Your task to perform on an android device: open app "DuckDuckGo Privacy Browser" (install if not already installed), go to login, and select forgot password Image 0: 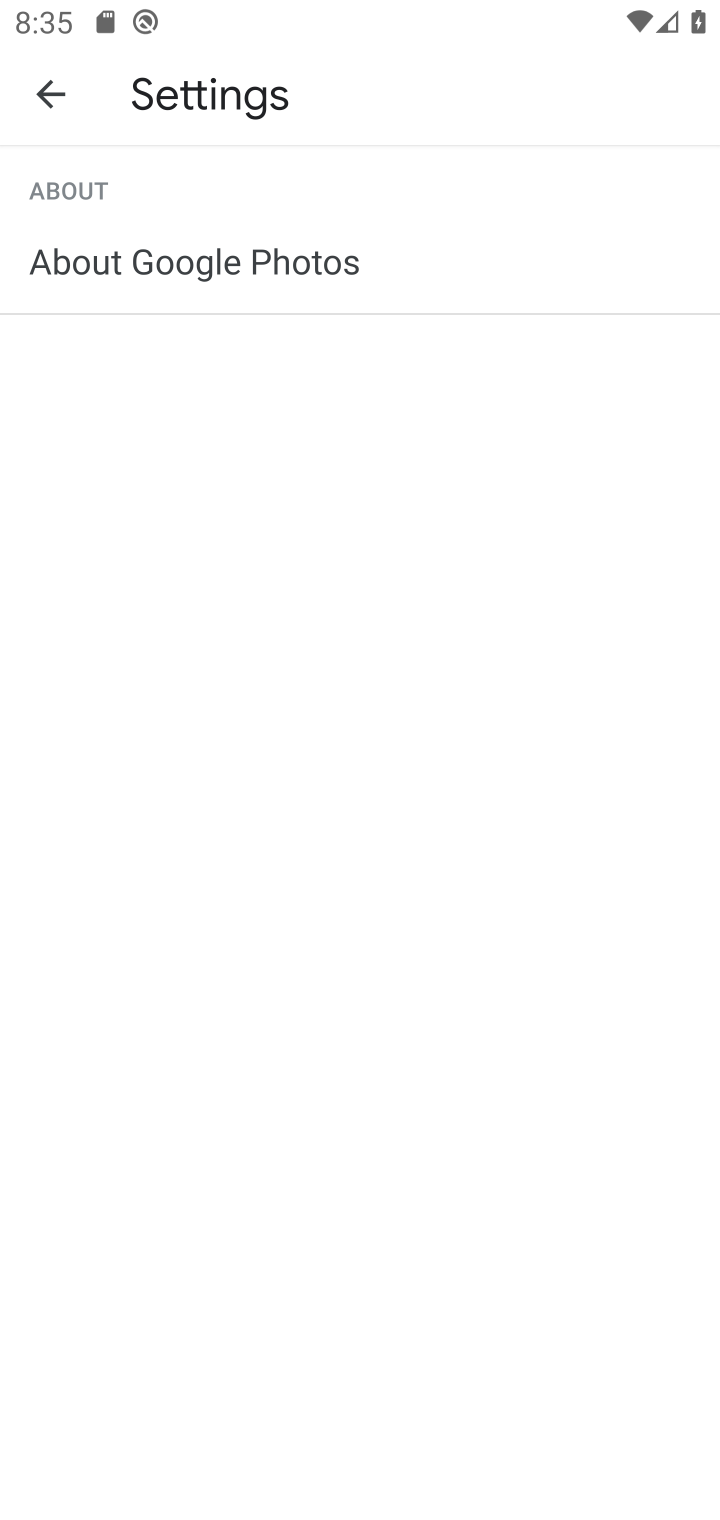
Step 0: press home button
Your task to perform on an android device: open app "DuckDuckGo Privacy Browser" (install if not already installed), go to login, and select forgot password Image 1: 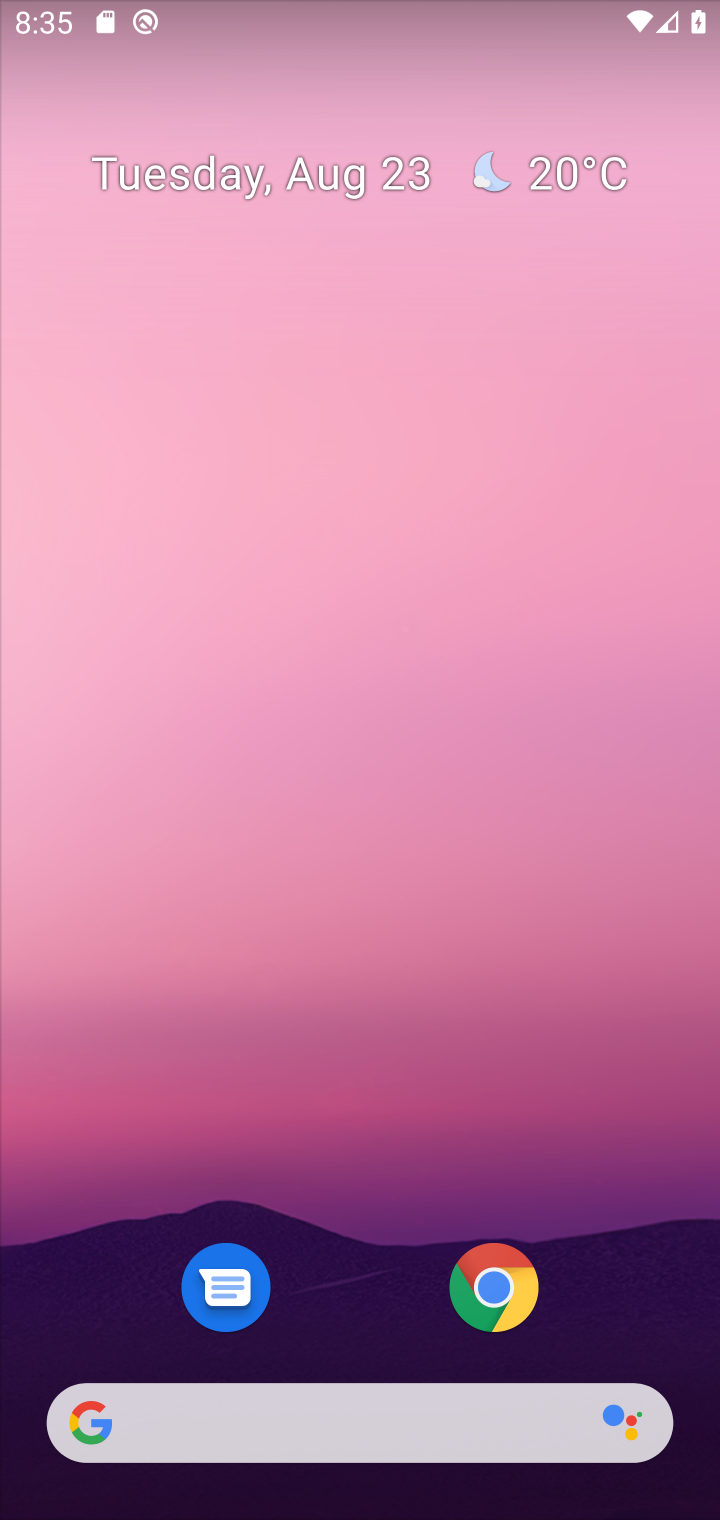
Step 1: drag from (375, 1349) to (301, 169)
Your task to perform on an android device: open app "DuckDuckGo Privacy Browser" (install if not already installed), go to login, and select forgot password Image 2: 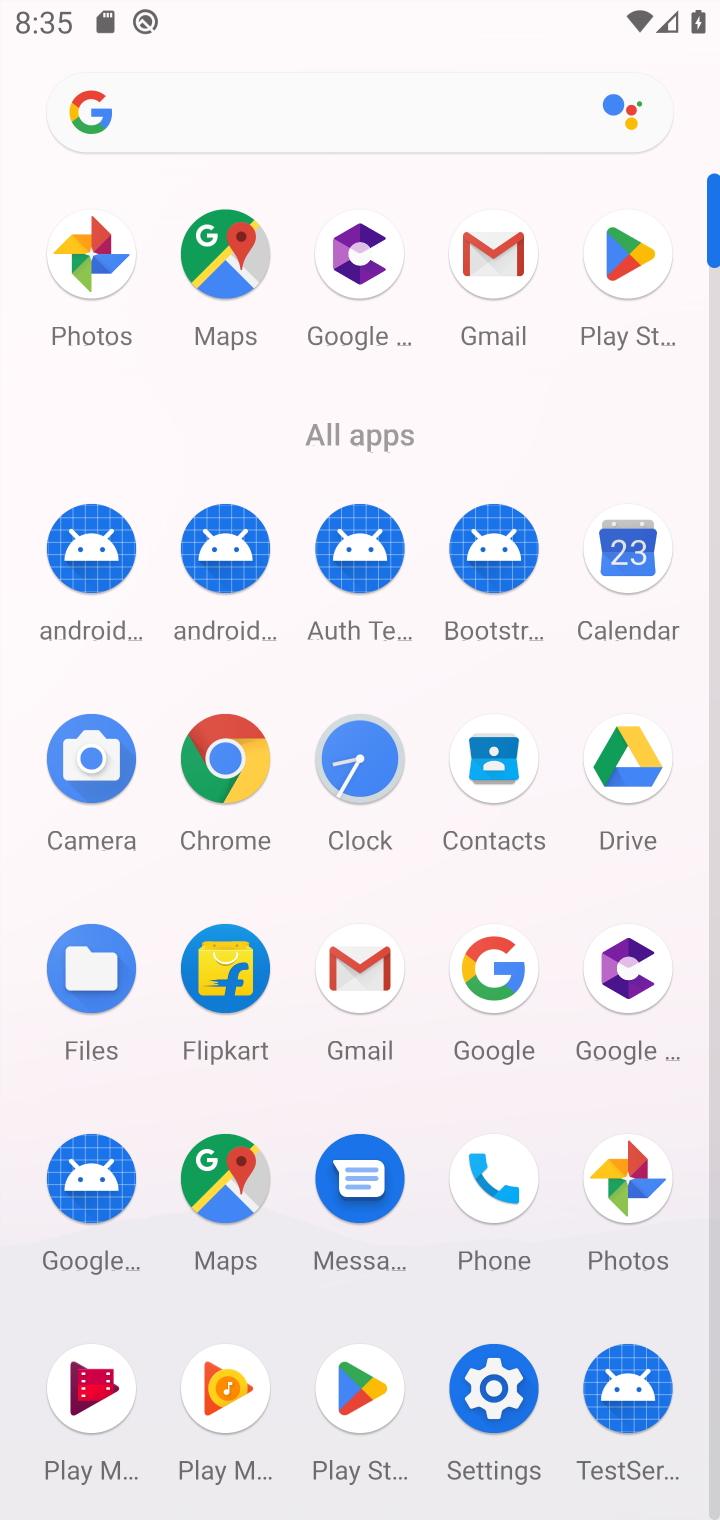
Step 2: click (635, 267)
Your task to perform on an android device: open app "DuckDuckGo Privacy Browser" (install if not already installed), go to login, and select forgot password Image 3: 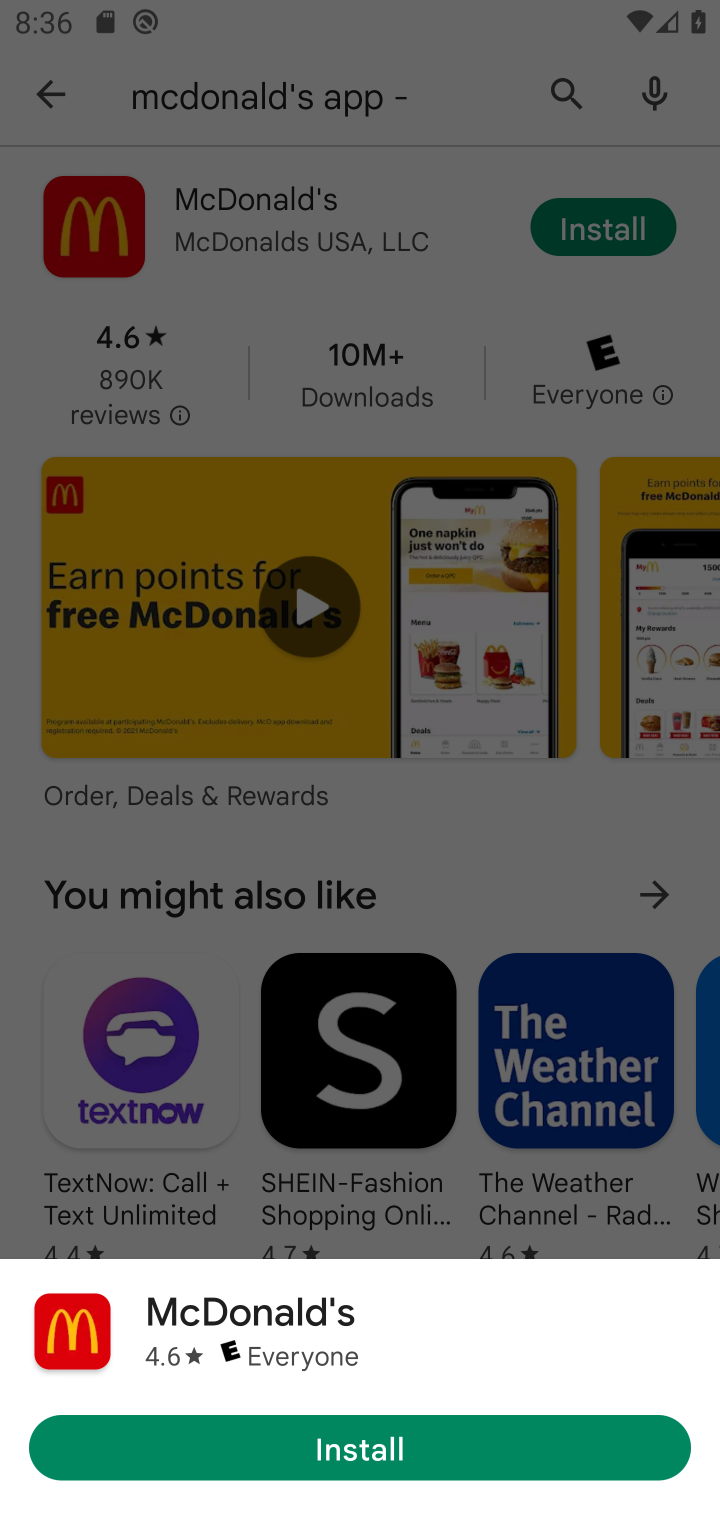
Step 3: click (559, 74)
Your task to perform on an android device: open app "DuckDuckGo Privacy Browser" (install if not already installed), go to login, and select forgot password Image 4: 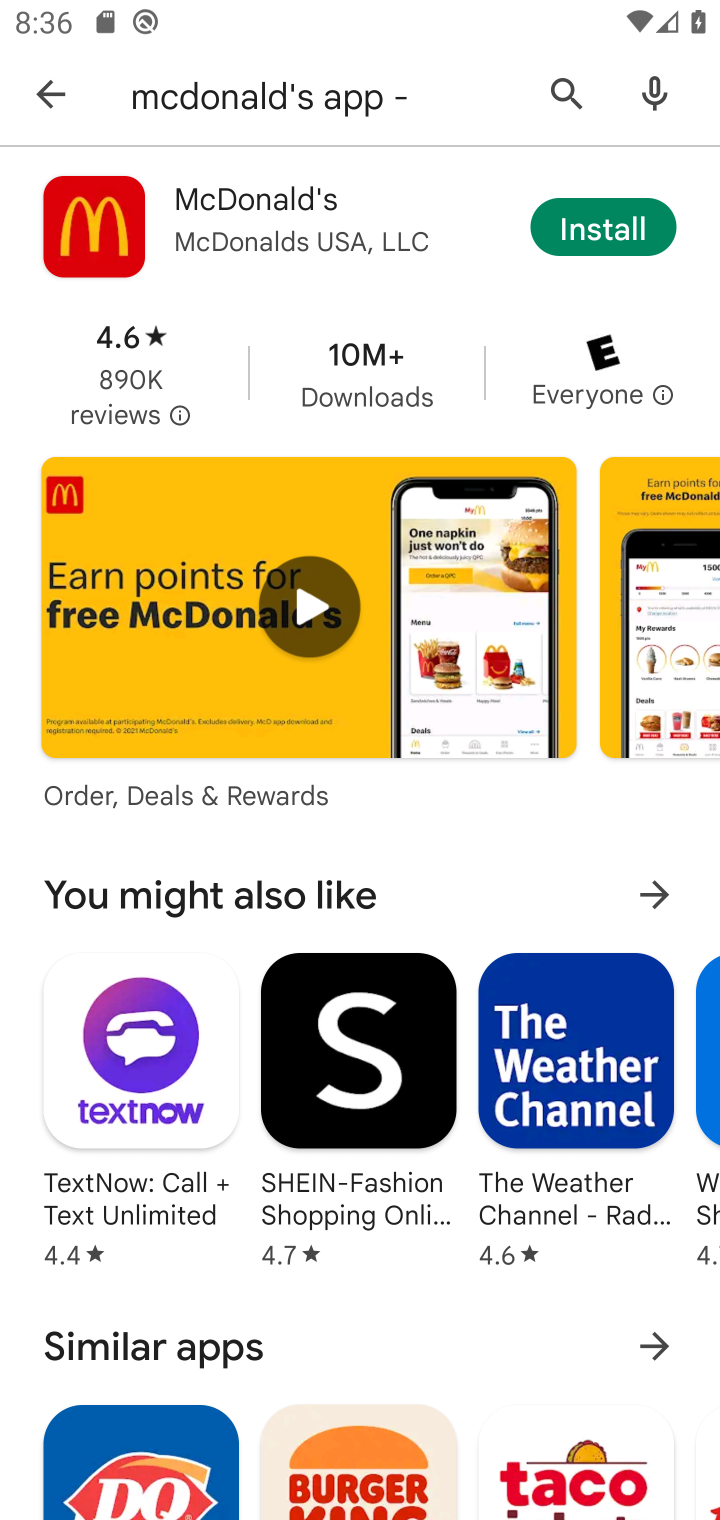
Step 4: click (559, 75)
Your task to perform on an android device: open app "DuckDuckGo Privacy Browser" (install if not already installed), go to login, and select forgot password Image 5: 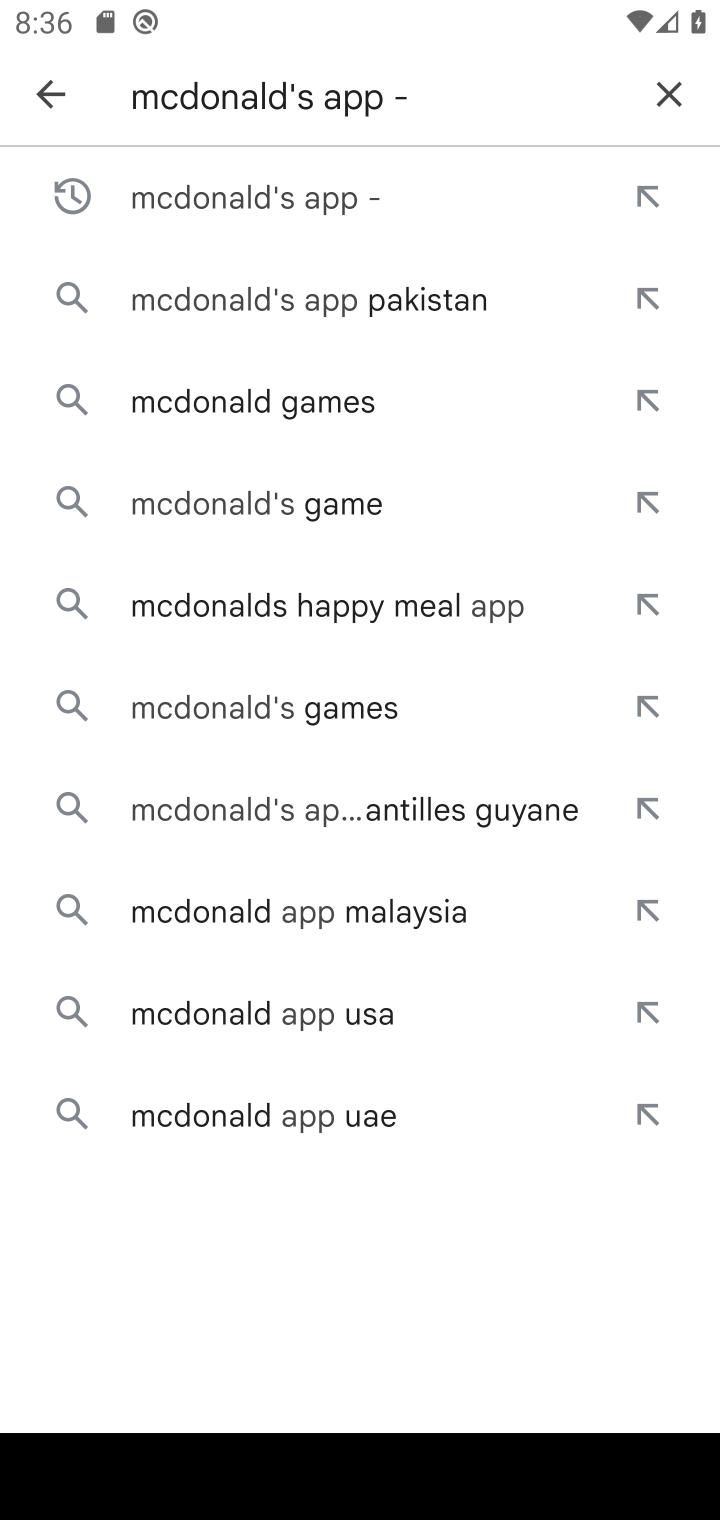
Step 5: click (666, 90)
Your task to perform on an android device: open app "DuckDuckGo Privacy Browser" (install if not already installed), go to login, and select forgot password Image 6: 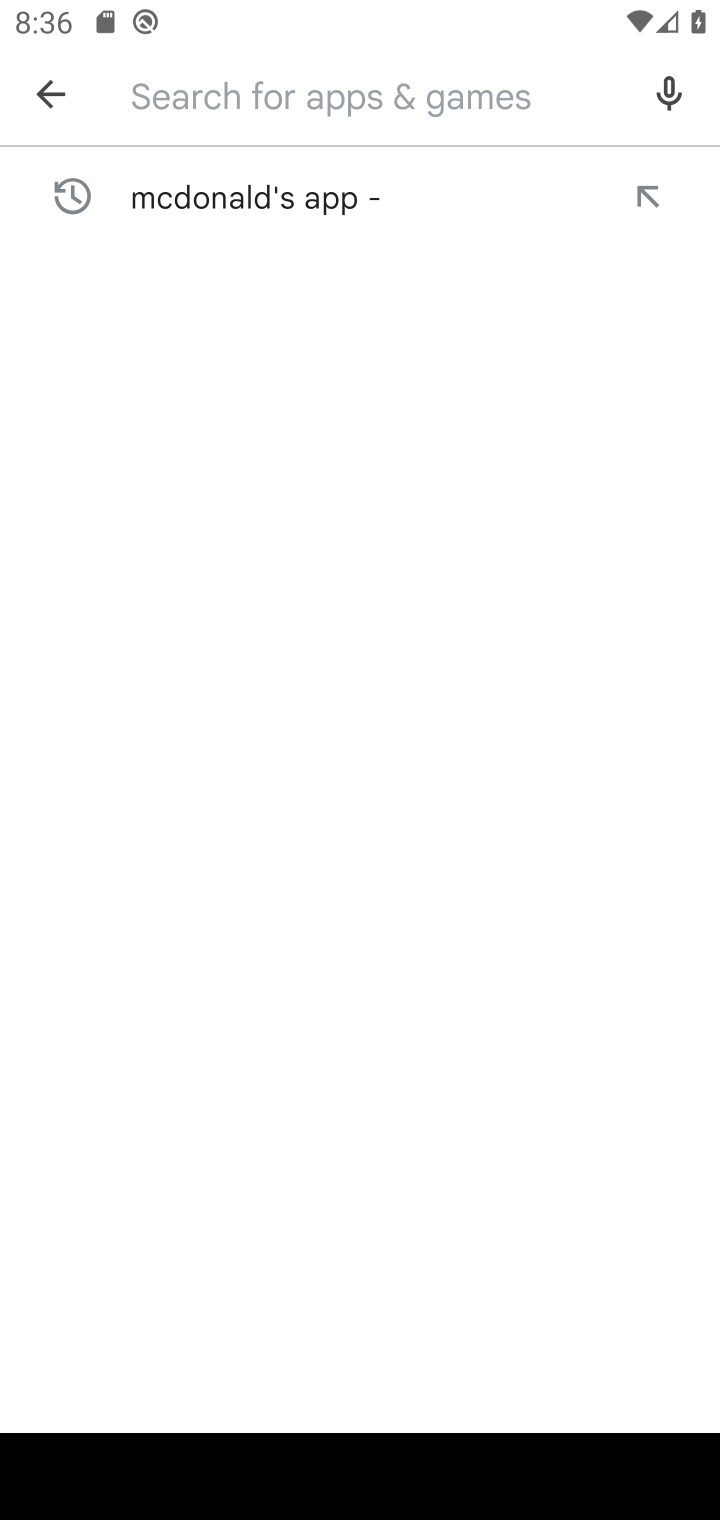
Step 6: type "DuckDuckGo Privacy Browser"
Your task to perform on an android device: open app "DuckDuckGo Privacy Browser" (install if not already installed), go to login, and select forgot password Image 7: 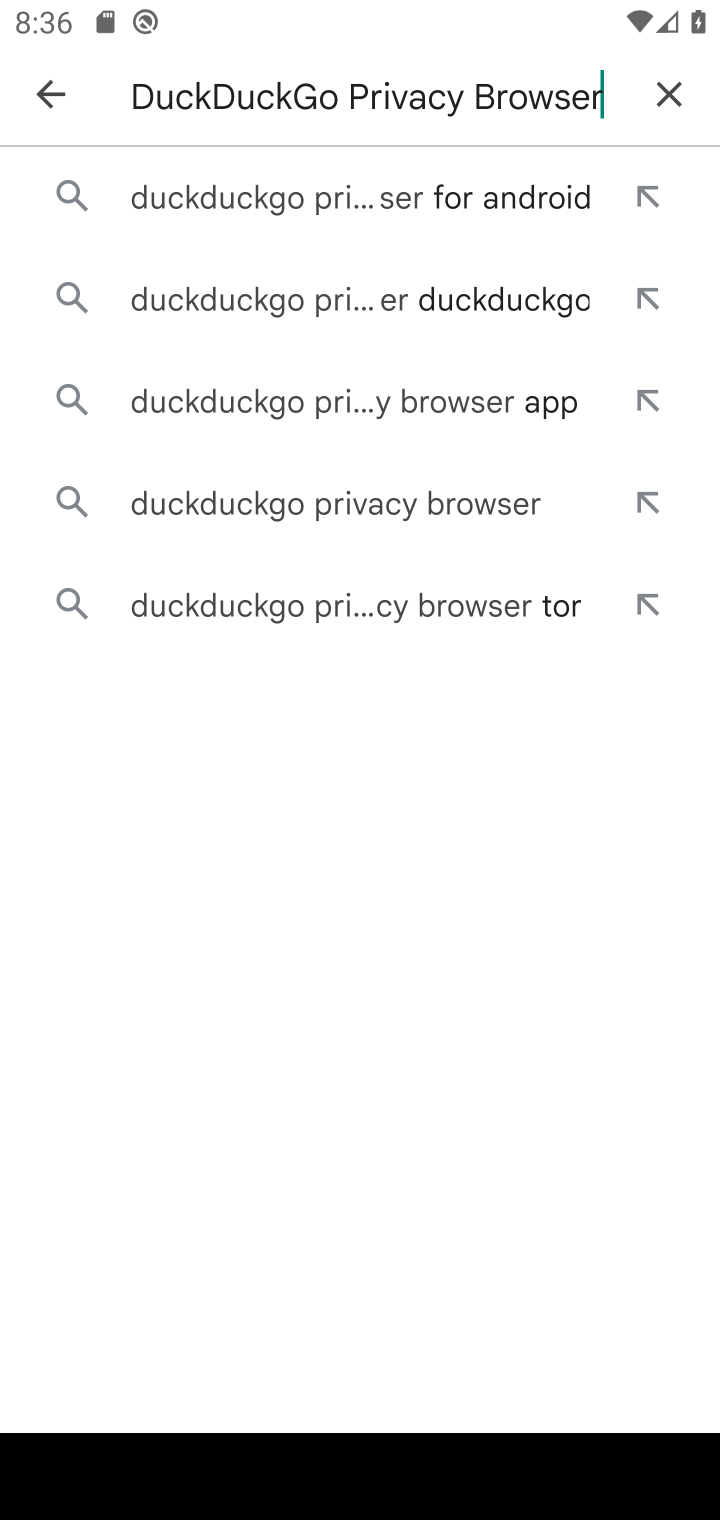
Step 7: click (332, 496)
Your task to perform on an android device: open app "DuckDuckGo Privacy Browser" (install if not already installed), go to login, and select forgot password Image 8: 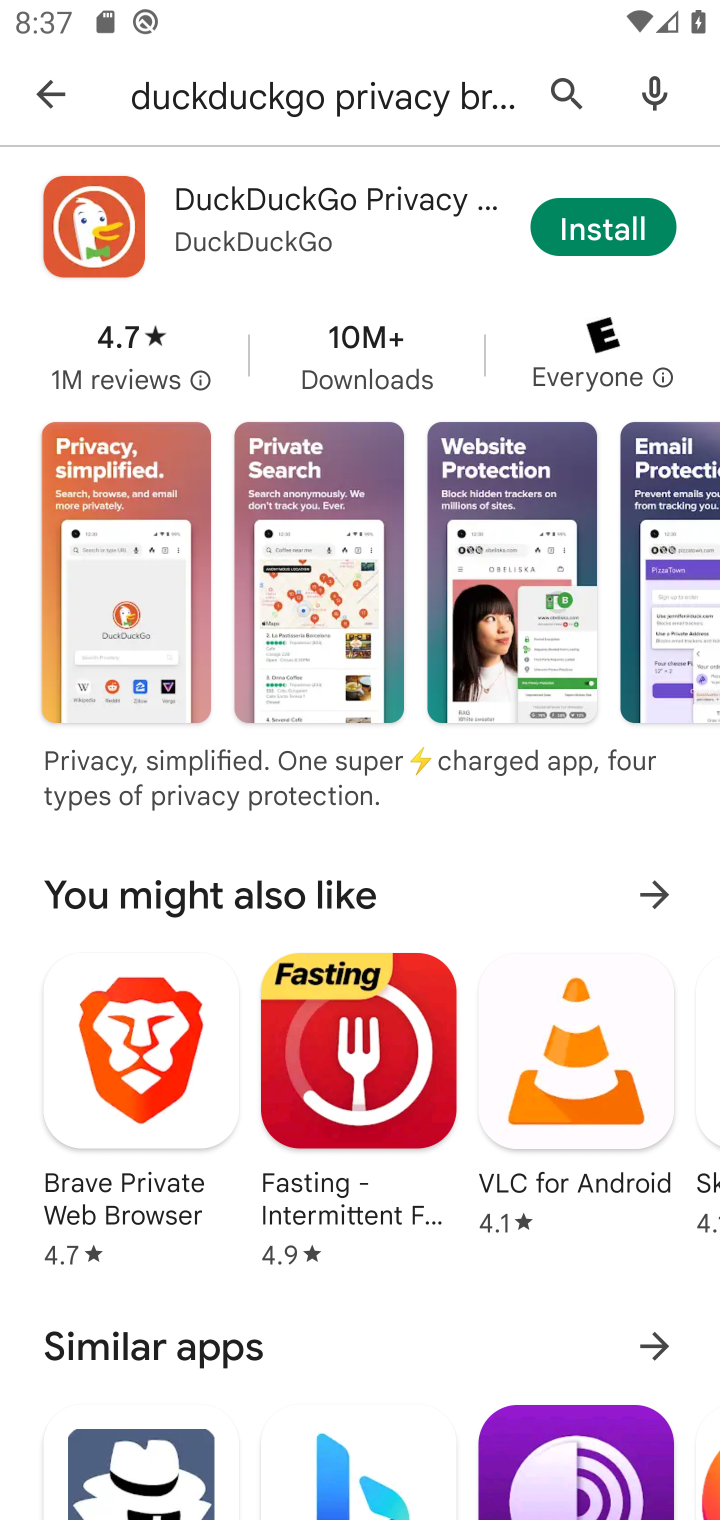
Step 8: click (597, 228)
Your task to perform on an android device: open app "DuckDuckGo Privacy Browser" (install if not already installed), go to login, and select forgot password Image 9: 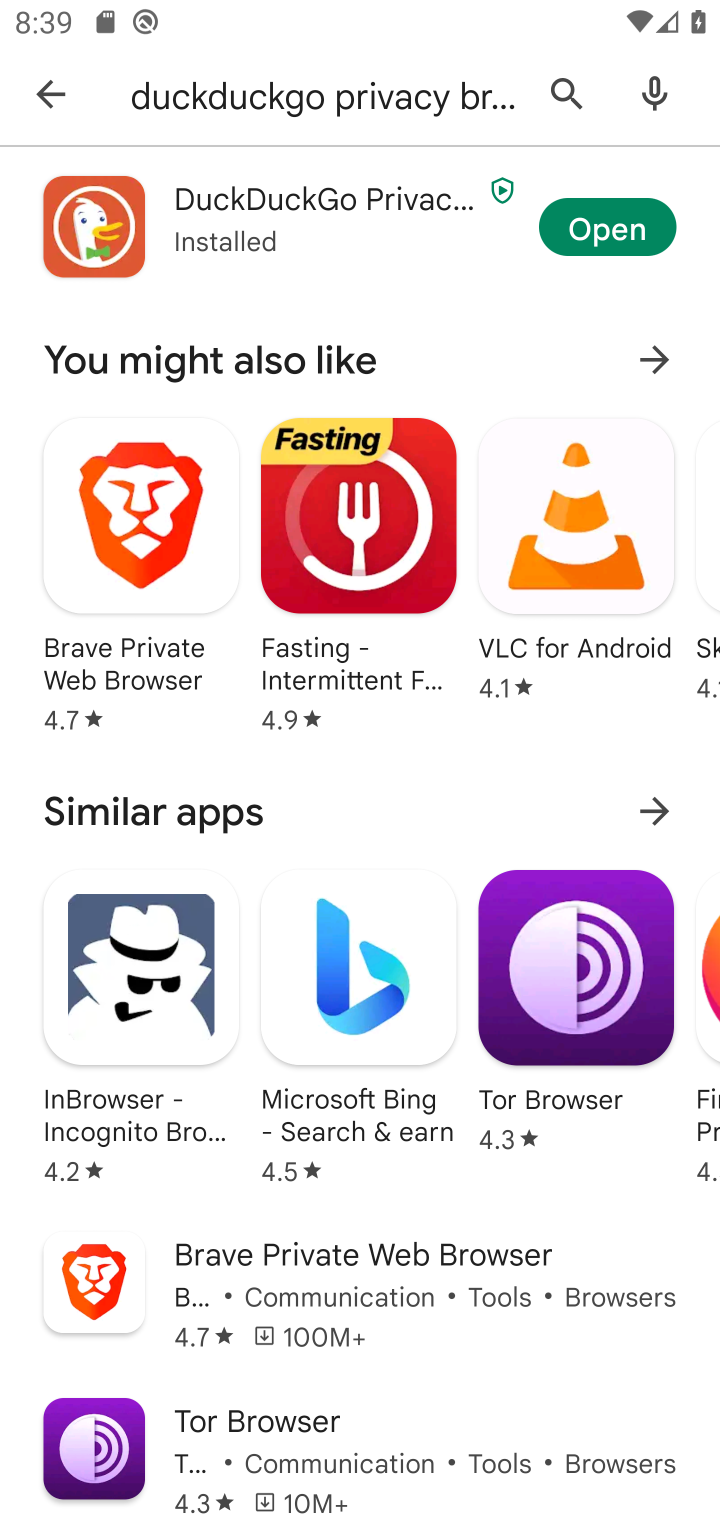
Step 9: click (577, 240)
Your task to perform on an android device: open app "DuckDuckGo Privacy Browser" (install if not already installed), go to login, and select forgot password Image 10: 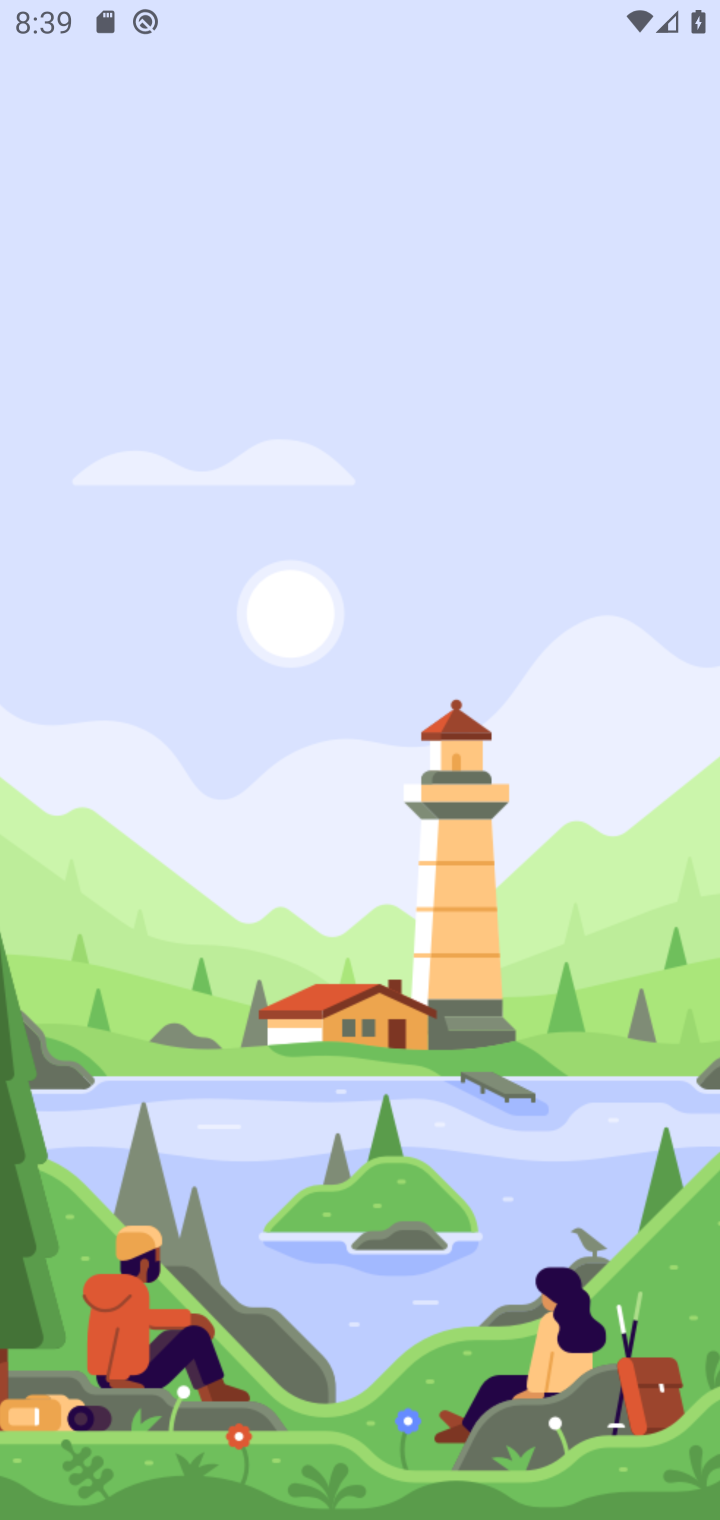
Step 10: task complete